Your task to perform on an android device: Open my contact list Image 0: 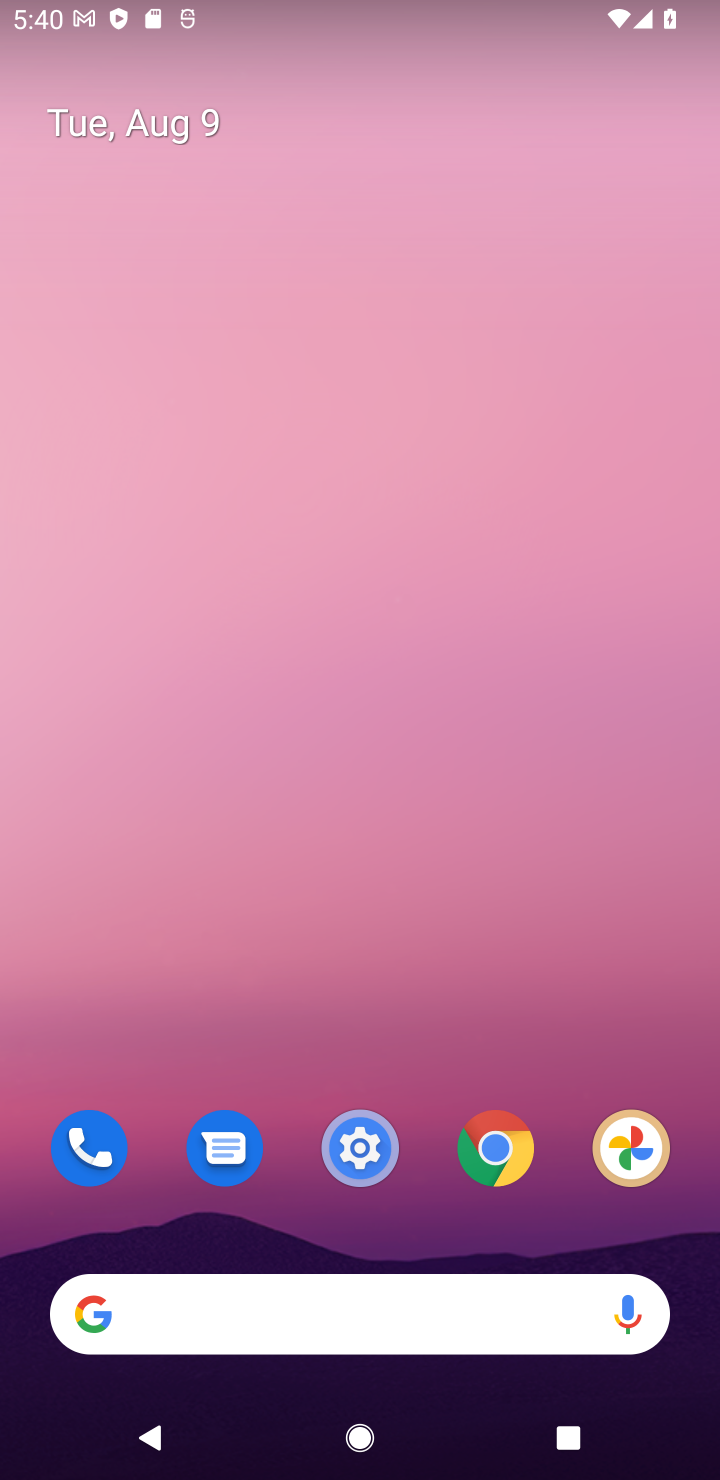
Step 0: drag from (311, 1057) to (423, 7)
Your task to perform on an android device: Open my contact list Image 1: 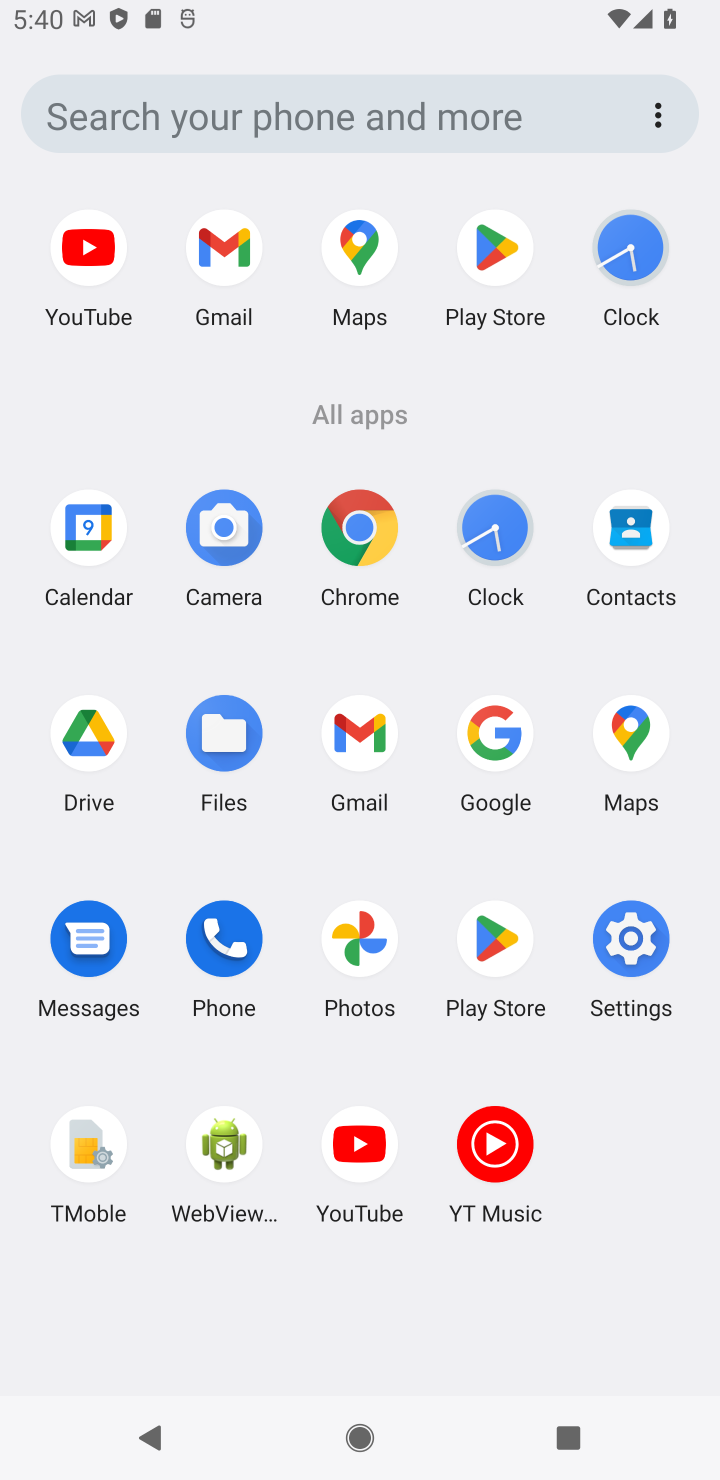
Step 1: click (626, 573)
Your task to perform on an android device: Open my contact list Image 2: 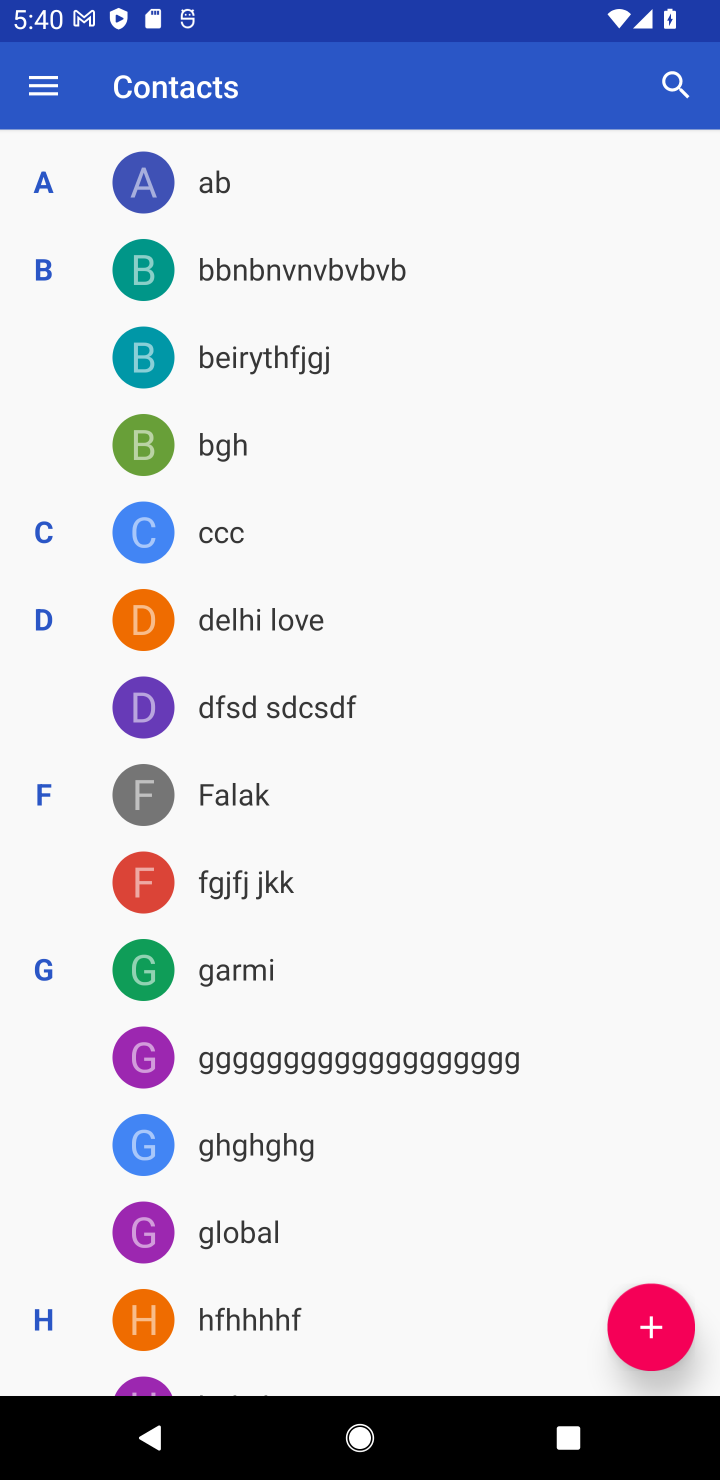
Step 2: task complete